Your task to perform on an android device: toggle translation in the chrome app Image 0: 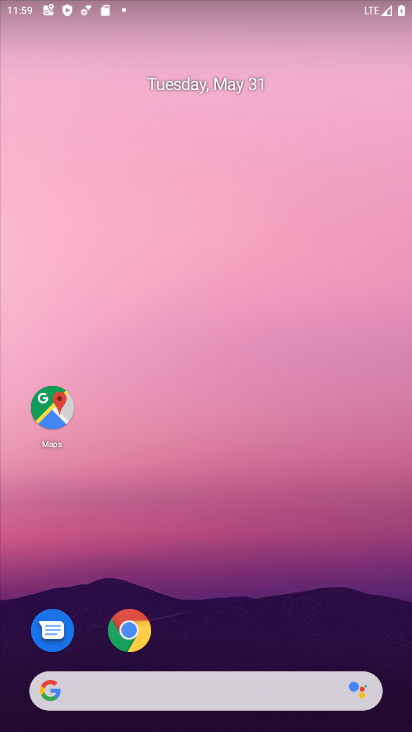
Step 0: click (133, 633)
Your task to perform on an android device: toggle translation in the chrome app Image 1: 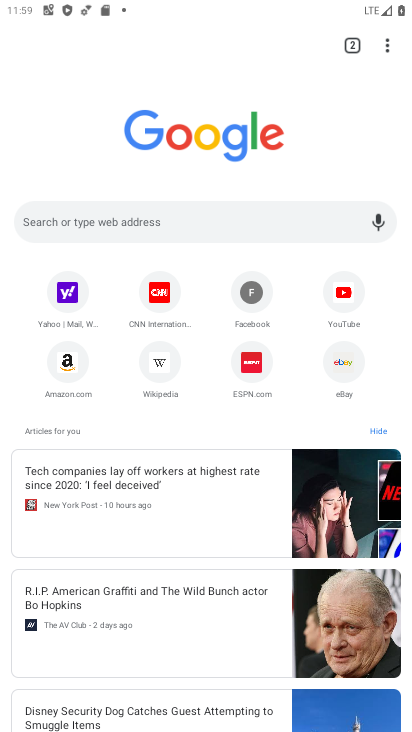
Step 1: drag from (389, 43) to (259, 386)
Your task to perform on an android device: toggle translation in the chrome app Image 2: 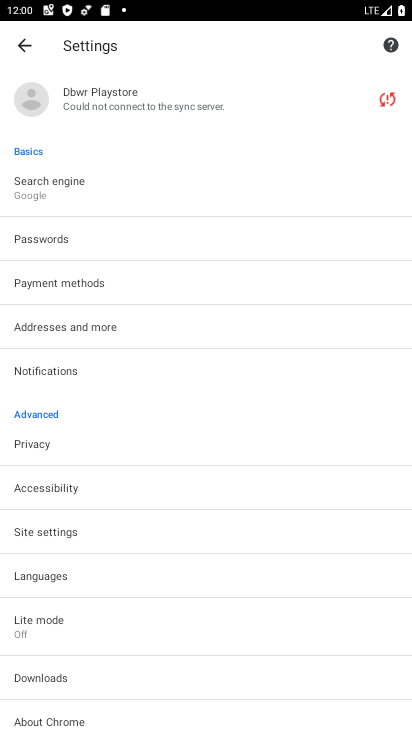
Step 2: click (24, 568)
Your task to perform on an android device: toggle translation in the chrome app Image 3: 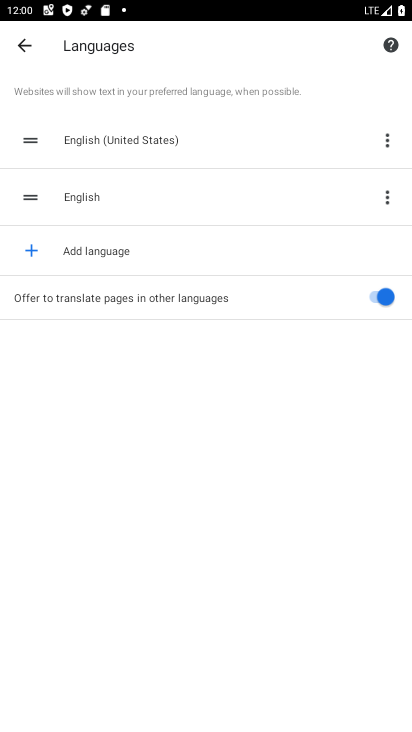
Step 3: click (381, 299)
Your task to perform on an android device: toggle translation in the chrome app Image 4: 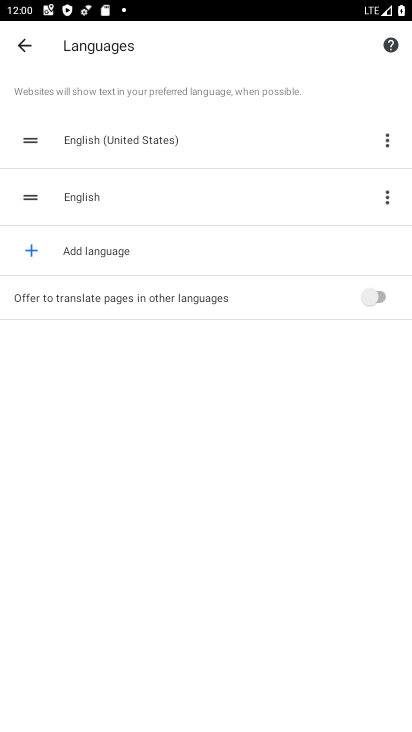
Step 4: task complete